Your task to perform on an android device: Play the last video I watched on Youtube Image 0: 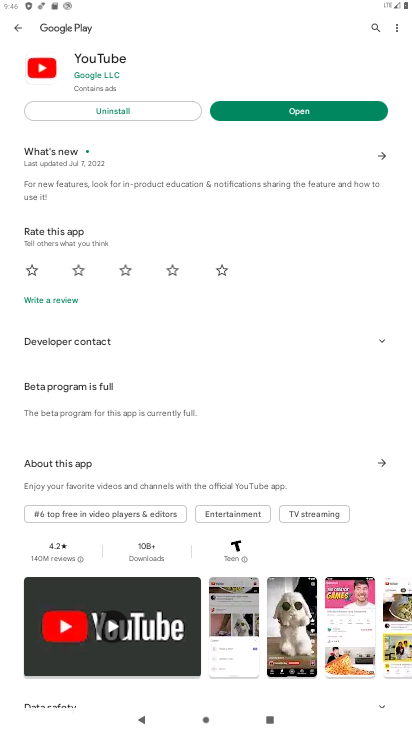
Step 0: press home button
Your task to perform on an android device: Play the last video I watched on Youtube Image 1: 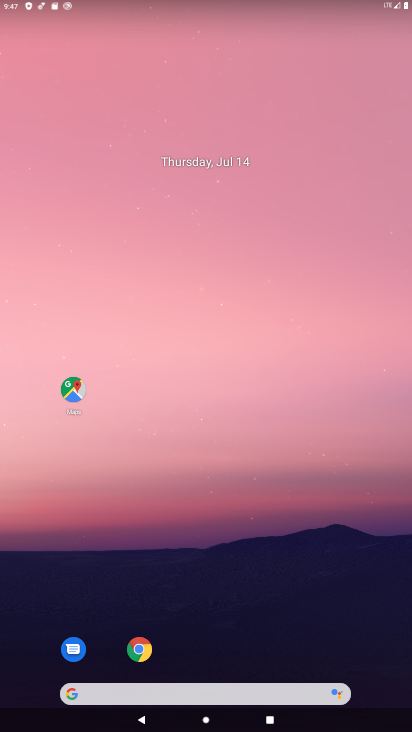
Step 1: drag from (204, 641) to (214, 195)
Your task to perform on an android device: Play the last video I watched on Youtube Image 2: 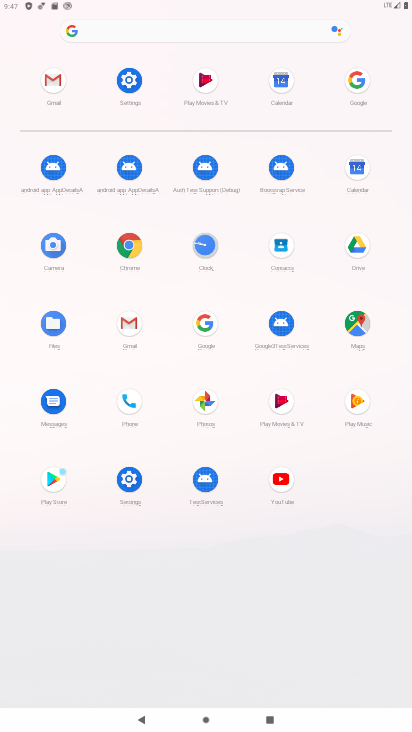
Step 2: click (280, 500)
Your task to perform on an android device: Play the last video I watched on Youtube Image 3: 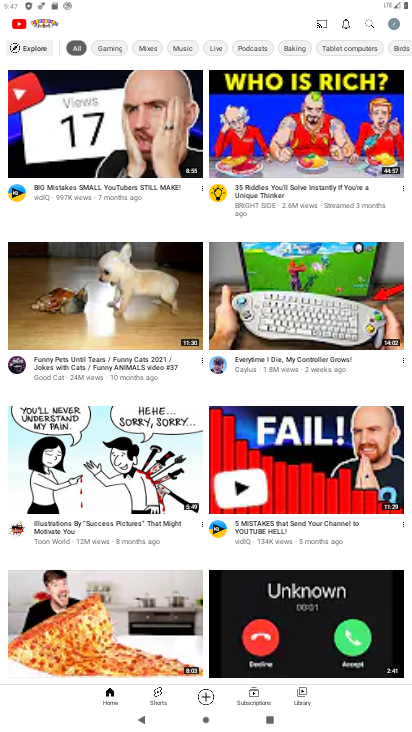
Step 3: click (306, 690)
Your task to perform on an android device: Play the last video I watched on Youtube Image 4: 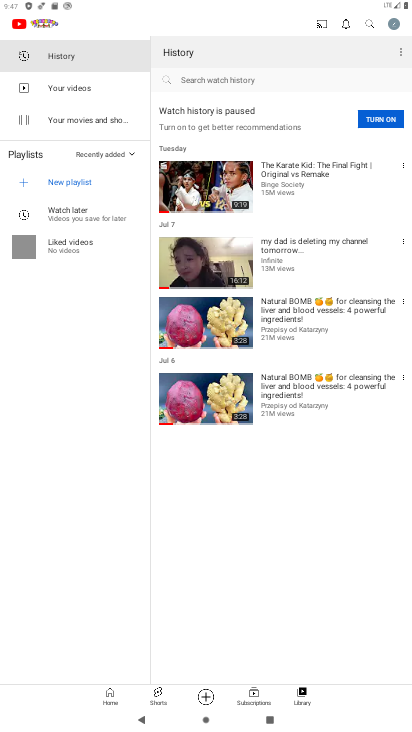
Step 4: click (211, 184)
Your task to perform on an android device: Play the last video I watched on Youtube Image 5: 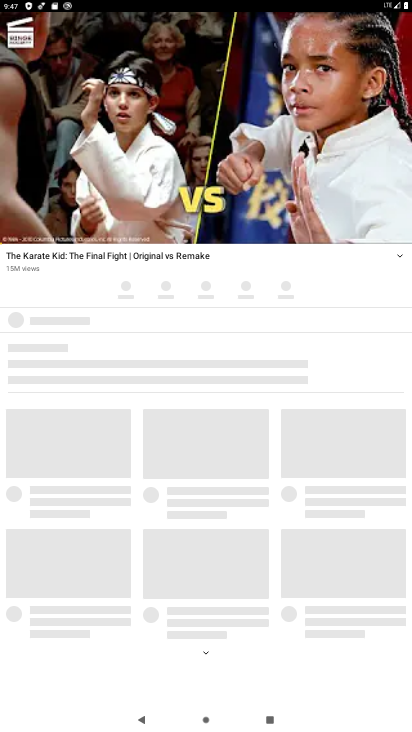
Step 5: click (188, 118)
Your task to perform on an android device: Play the last video I watched on Youtube Image 6: 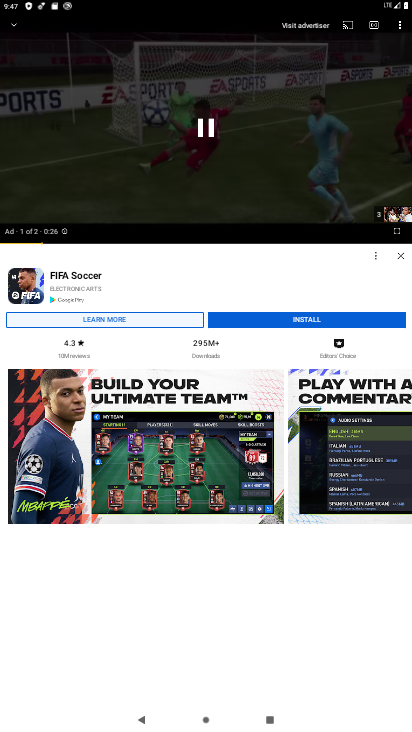
Step 6: click (196, 126)
Your task to perform on an android device: Play the last video I watched on Youtube Image 7: 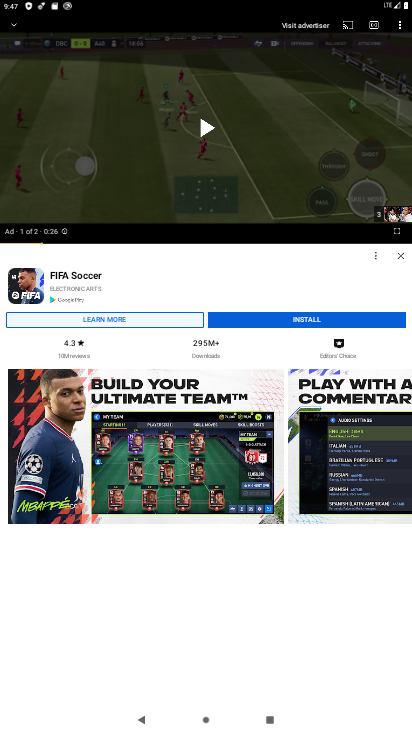
Step 7: task complete